Your task to perform on an android device: turn off data saver in the chrome app Image 0: 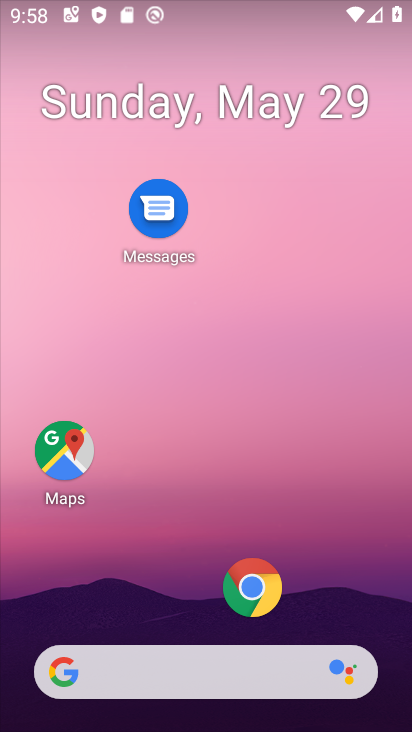
Step 0: click (264, 592)
Your task to perform on an android device: turn off data saver in the chrome app Image 1: 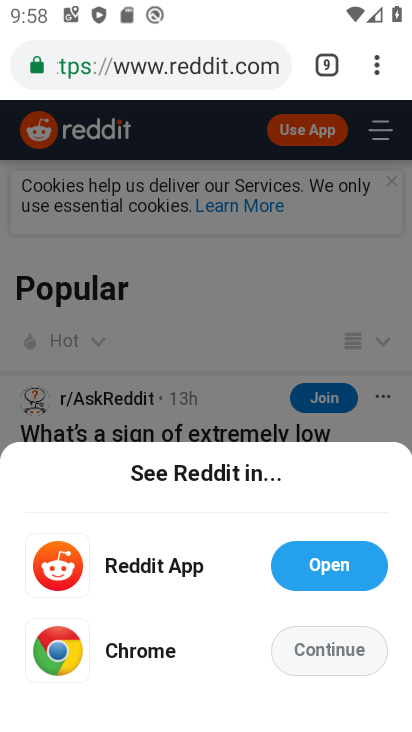
Step 1: drag from (378, 56) to (158, 636)
Your task to perform on an android device: turn off data saver in the chrome app Image 2: 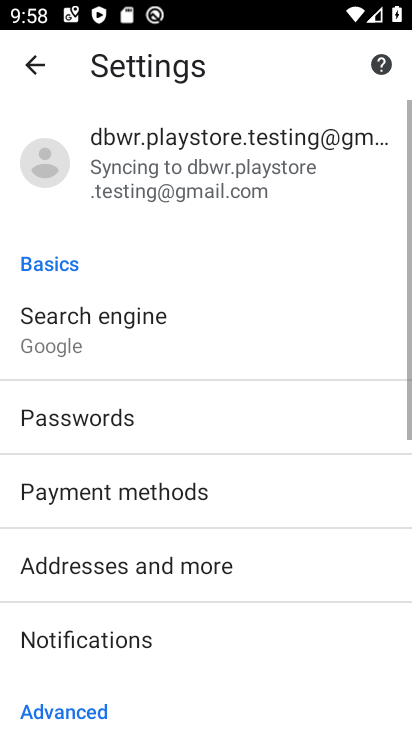
Step 2: drag from (159, 633) to (211, 119)
Your task to perform on an android device: turn off data saver in the chrome app Image 3: 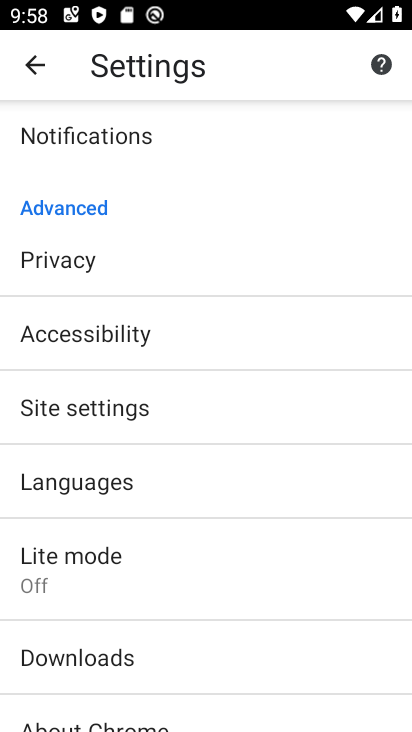
Step 3: click (120, 579)
Your task to perform on an android device: turn off data saver in the chrome app Image 4: 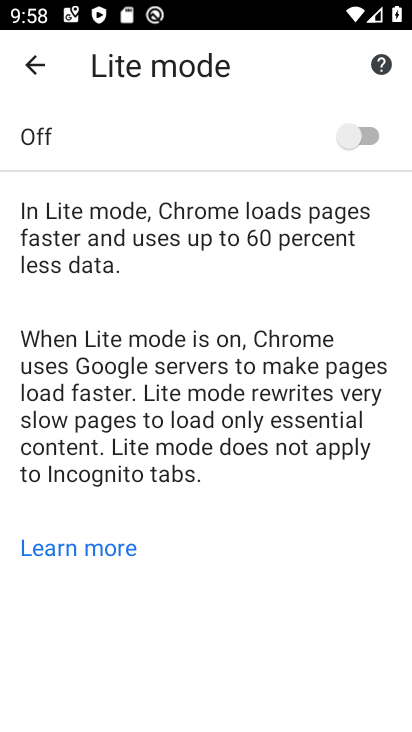
Step 4: task complete